Your task to perform on an android device: Open sound settings Image 0: 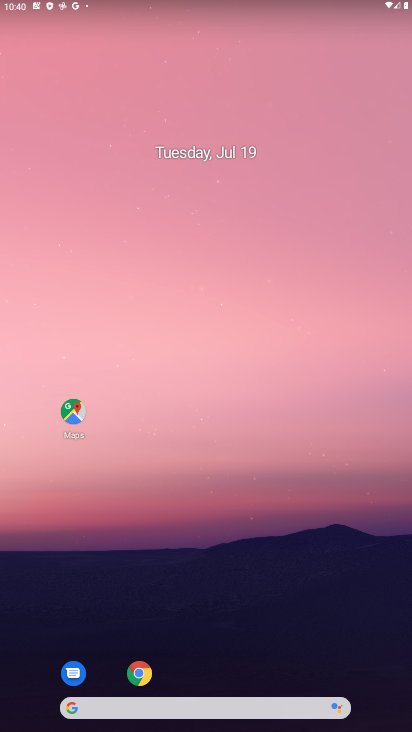
Step 0: drag from (259, 667) to (372, 293)
Your task to perform on an android device: Open sound settings Image 1: 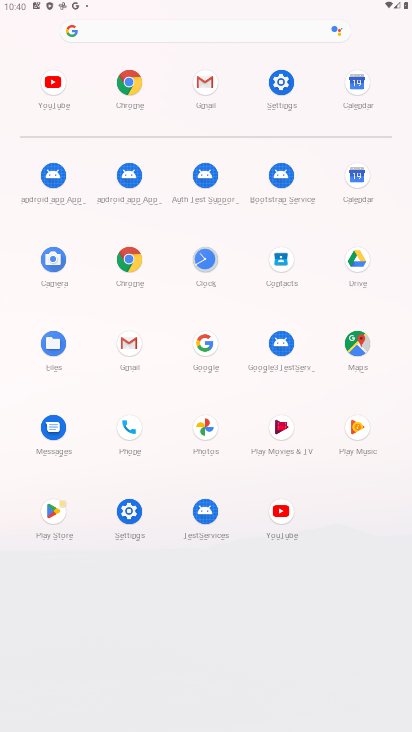
Step 1: click (262, 85)
Your task to perform on an android device: Open sound settings Image 2: 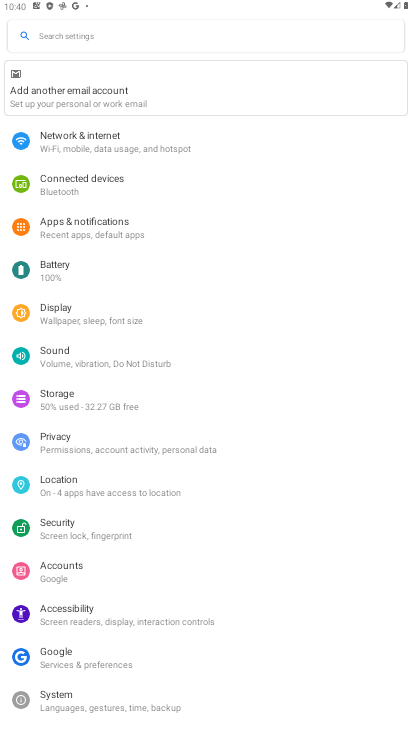
Step 2: click (99, 357)
Your task to perform on an android device: Open sound settings Image 3: 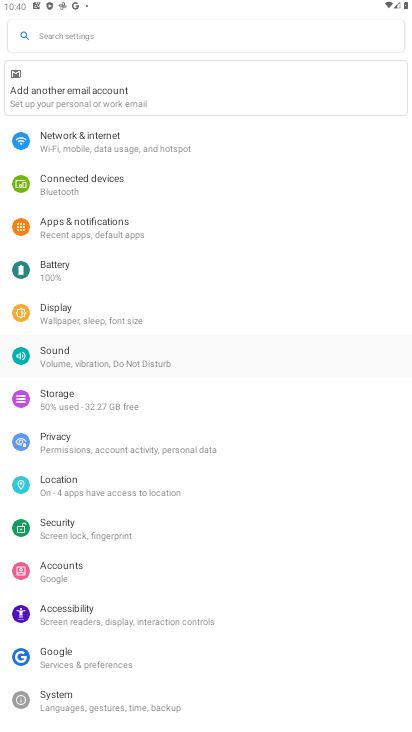
Step 3: task complete